Your task to perform on an android device: open app "PUBG MOBILE" Image 0: 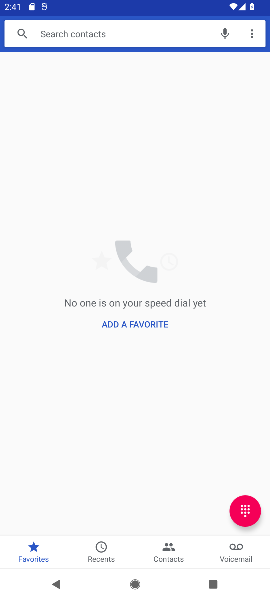
Step 0: press home button
Your task to perform on an android device: open app "PUBG MOBILE" Image 1: 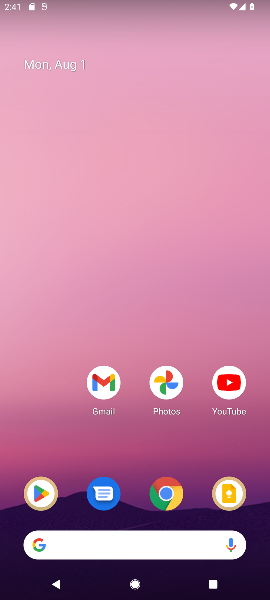
Step 1: click (41, 500)
Your task to perform on an android device: open app "PUBG MOBILE" Image 2: 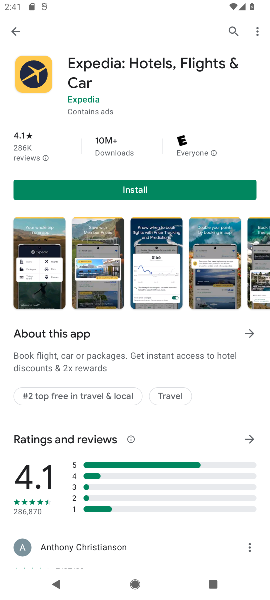
Step 2: click (227, 25)
Your task to perform on an android device: open app "PUBG MOBILE" Image 3: 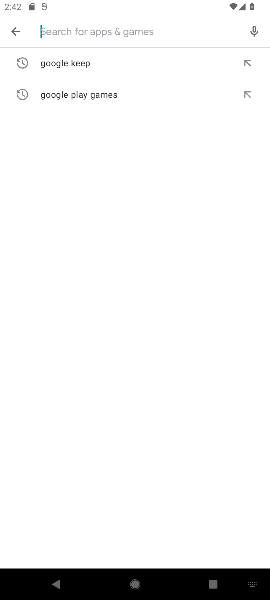
Step 3: type "PUBG MOBILE"
Your task to perform on an android device: open app "PUBG MOBILE" Image 4: 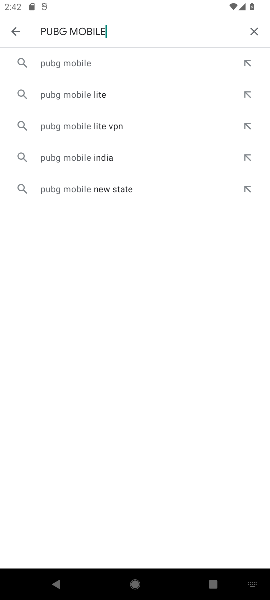
Step 4: click (162, 65)
Your task to perform on an android device: open app "PUBG MOBILE" Image 5: 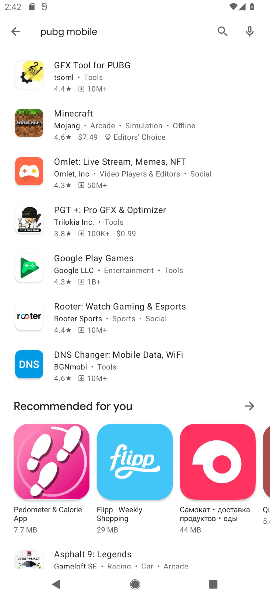
Step 5: task complete